Your task to perform on an android device: What is the recent news? Image 0: 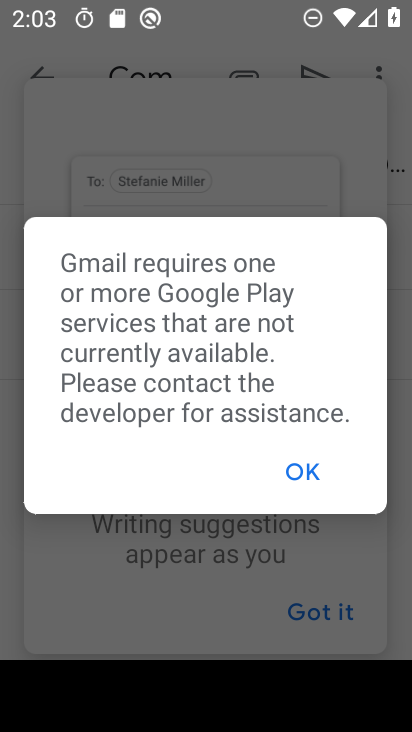
Step 0: click (298, 465)
Your task to perform on an android device: What is the recent news? Image 1: 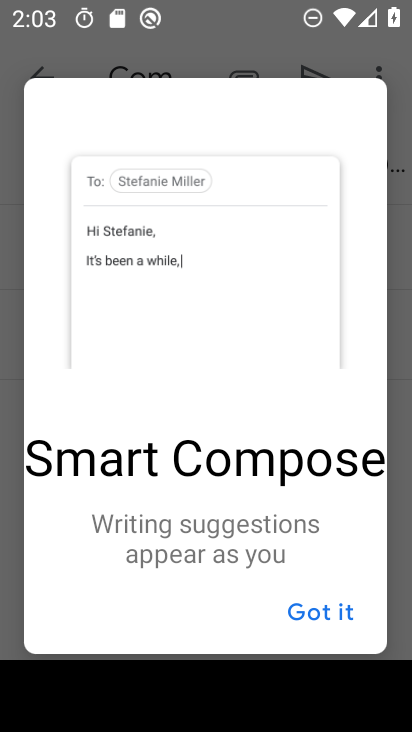
Step 1: click (313, 620)
Your task to perform on an android device: What is the recent news? Image 2: 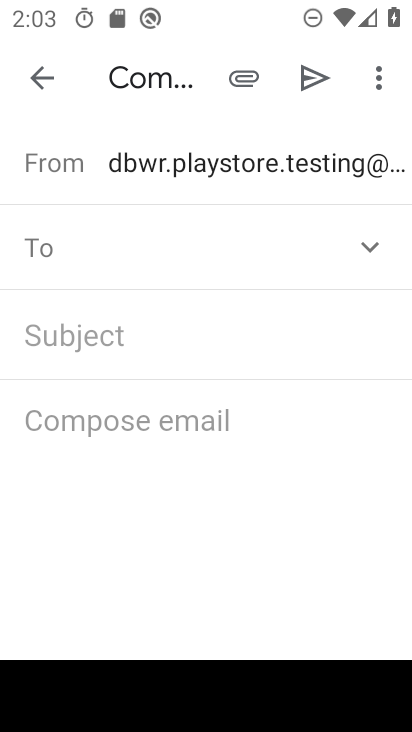
Step 2: press home button
Your task to perform on an android device: What is the recent news? Image 3: 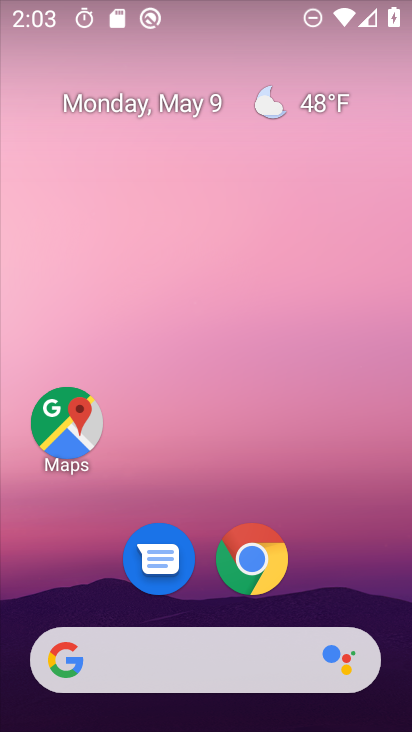
Step 3: drag from (193, 603) to (321, 34)
Your task to perform on an android device: What is the recent news? Image 4: 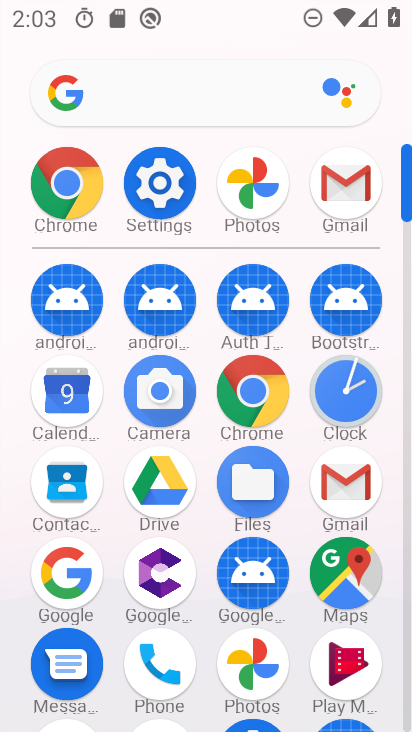
Step 4: click (184, 110)
Your task to perform on an android device: What is the recent news? Image 5: 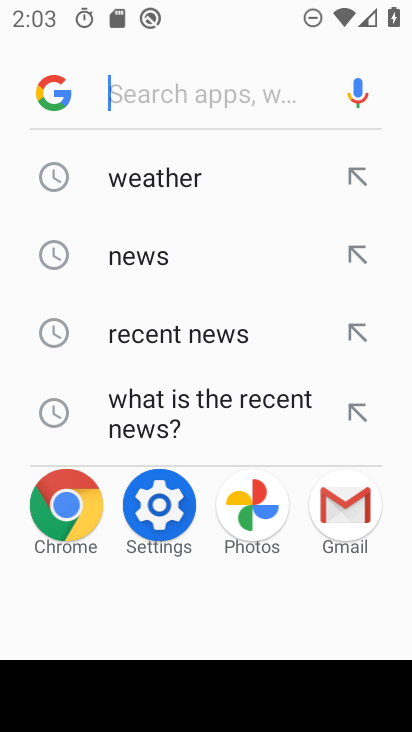
Step 5: click (194, 334)
Your task to perform on an android device: What is the recent news? Image 6: 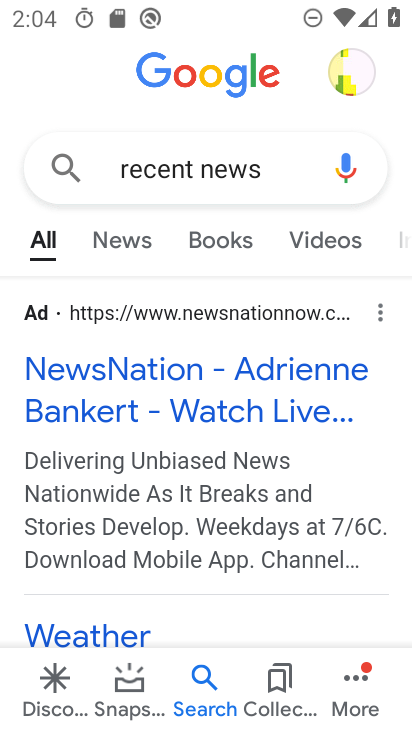
Step 6: drag from (190, 447) to (300, 152)
Your task to perform on an android device: What is the recent news? Image 7: 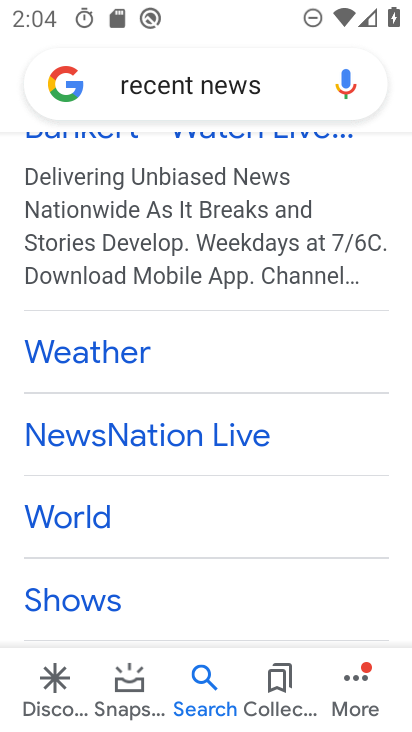
Step 7: drag from (190, 464) to (267, 120)
Your task to perform on an android device: What is the recent news? Image 8: 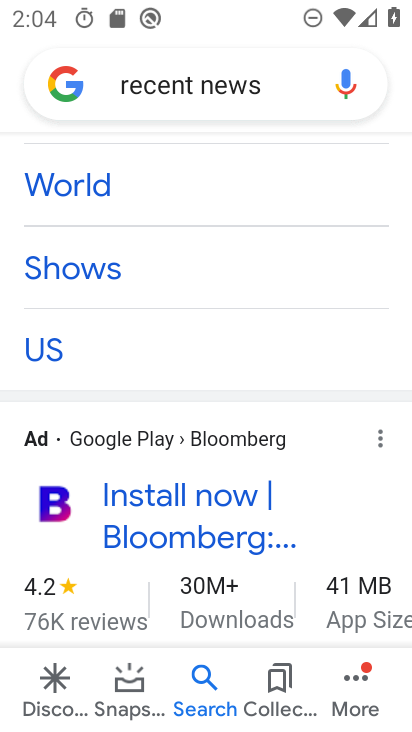
Step 8: drag from (271, 214) to (394, 718)
Your task to perform on an android device: What is the recent news? Image 9: 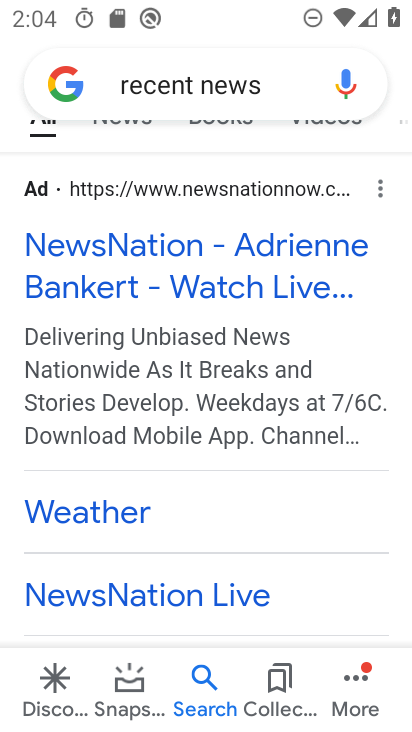
Step 9: drag from (189, 322) to (232, 588)
Your task to perform on an android device: What is the recent news? Image 10: 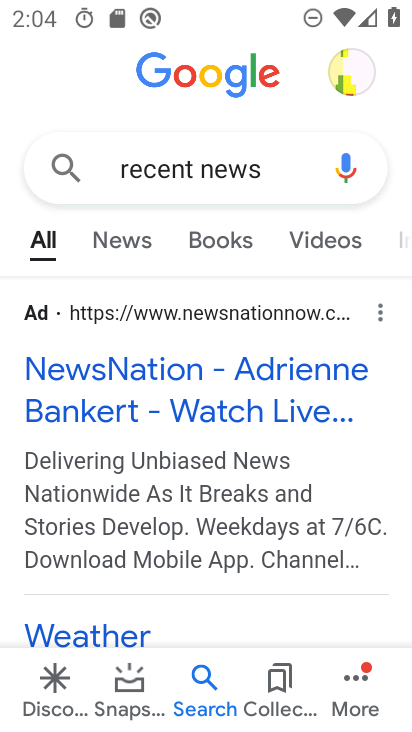
Step 10: click (192, 406)
Your task to perform on an android device: What is the recent news? Image 11: 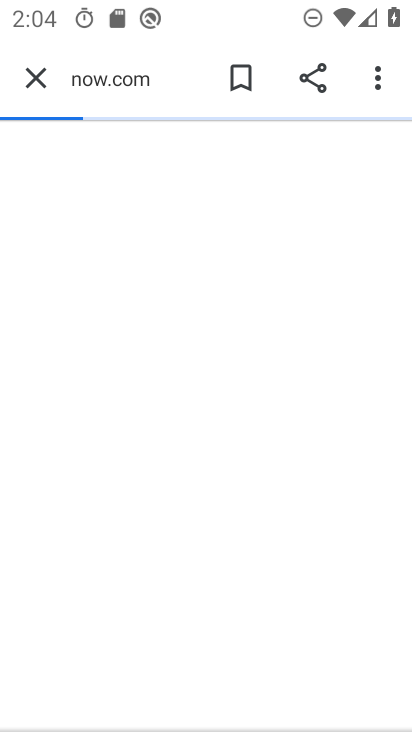
Step 11: task complete